Your task to perform on an android device: install app "Google Chat" Image 0: 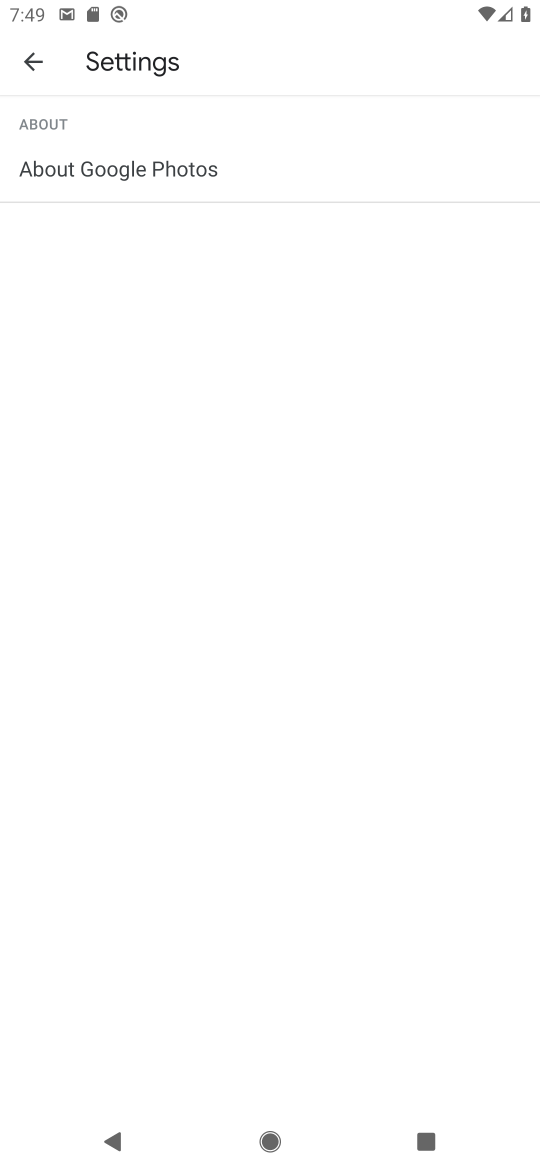
Step 0: press home button
Your task to perform on an android device: install app "Google Chat" Image 1: 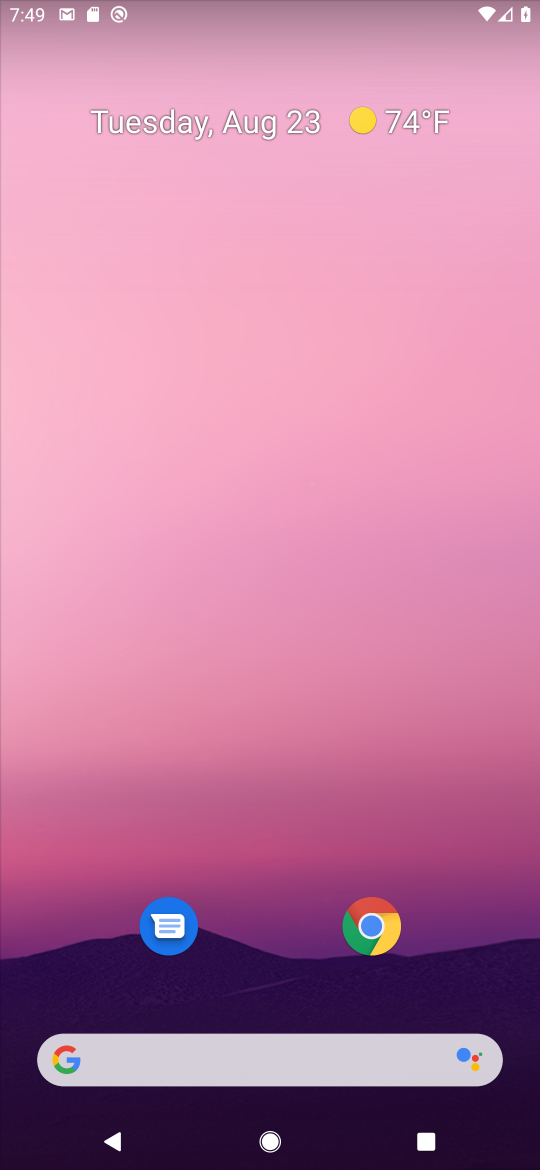
Step 1: drag from (261, 855) to (202, 36)
Your task to perform on an android device: install app "Google Chat" Image 2: 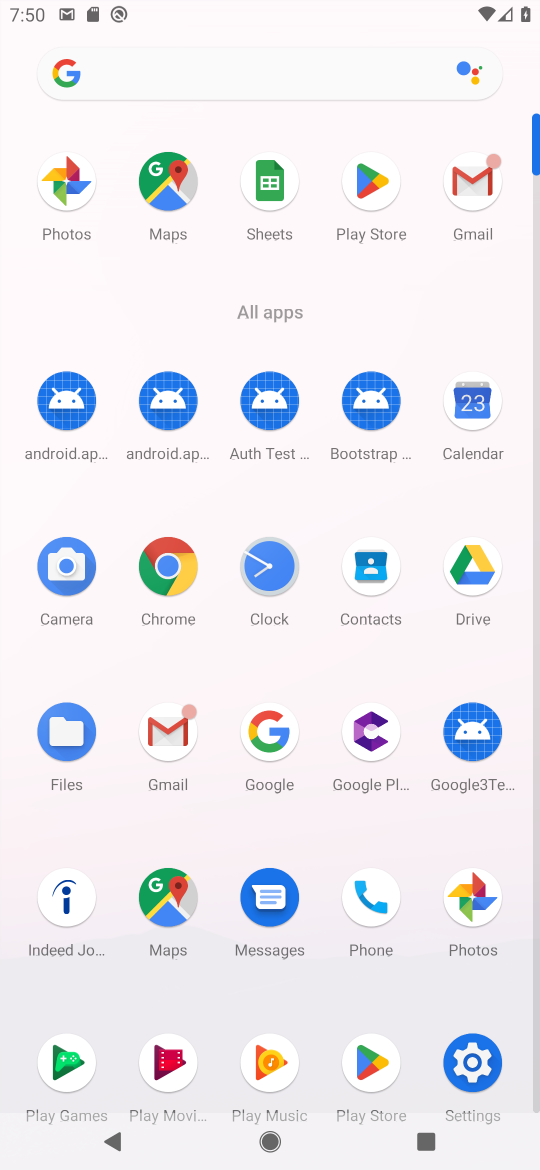
Step 2: click (366, 181)
Your task to perform on an android device: install app "Google Chat" Image 3: 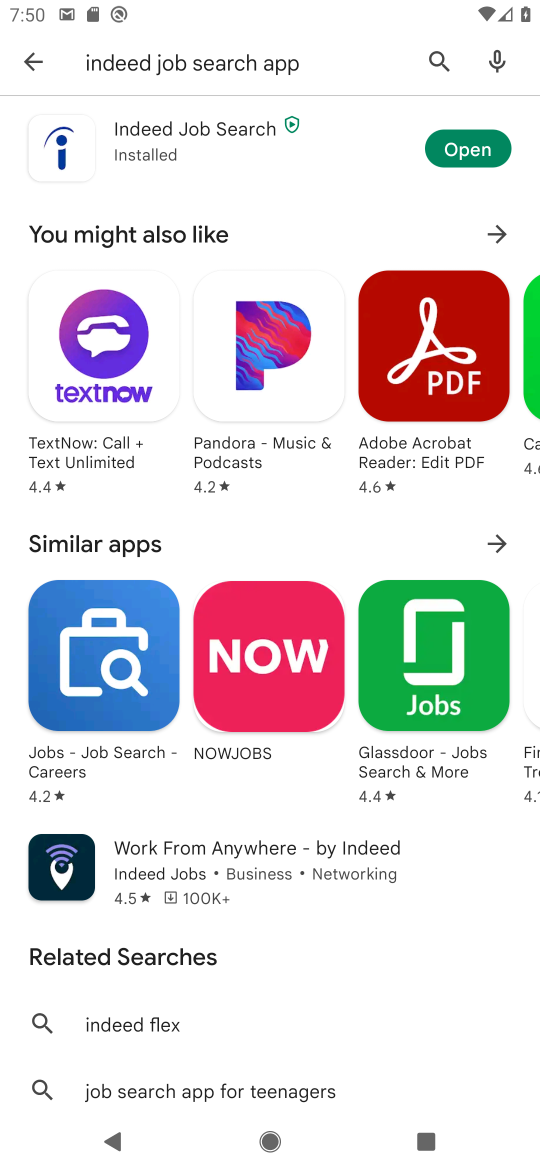
Step 3: click (178, 61)
Your task to perform on an android device: install app "Google Chat" Image 4: 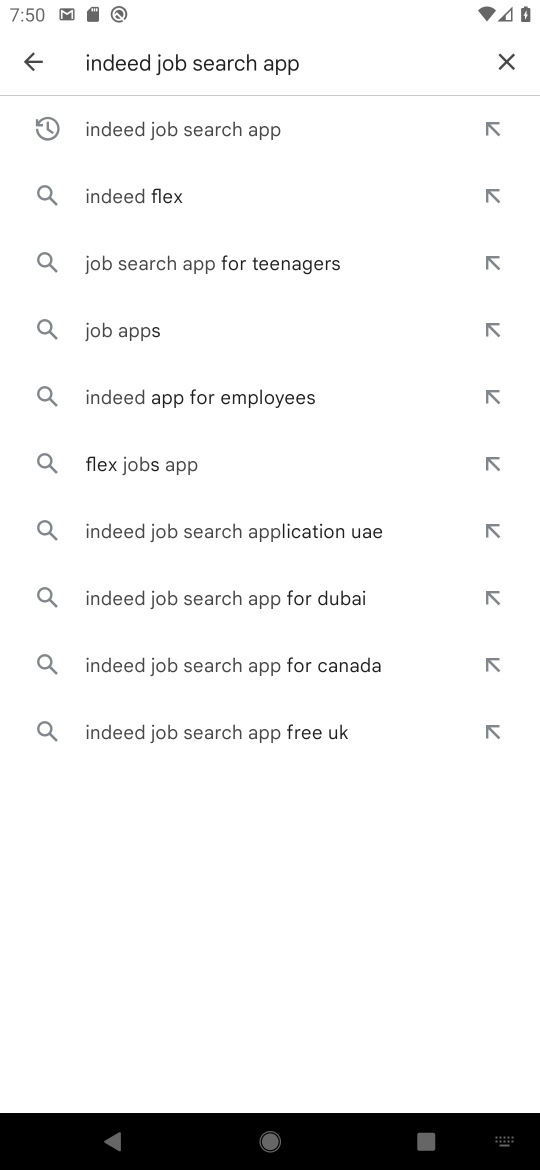
Step 4: click (503, 55)
Your task to perform on an android device: install app "Google Chat" Image 5: 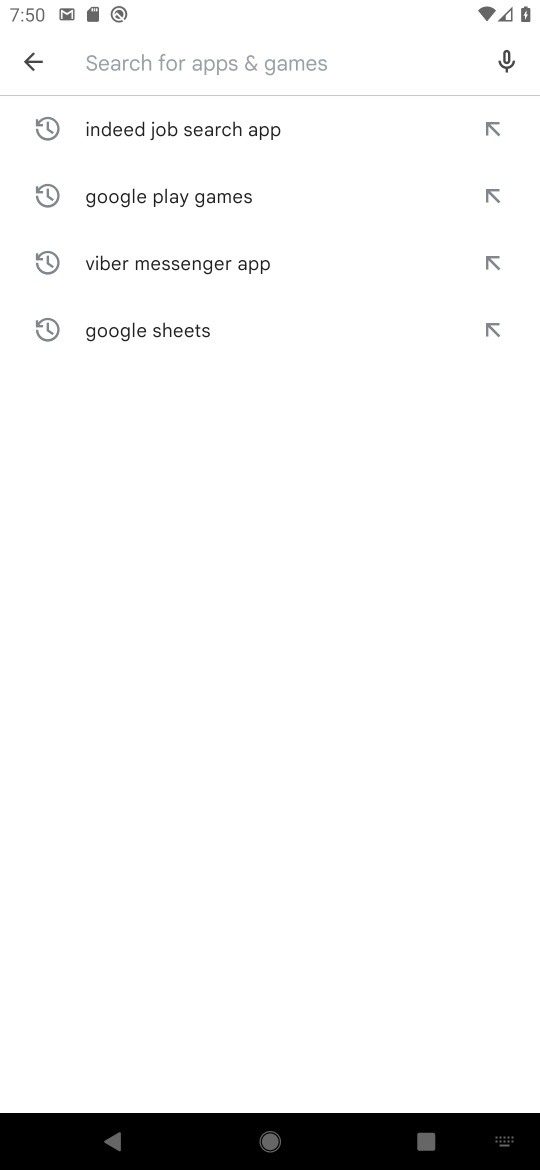
Step 5: type "google chat"
Your task to perform on an android device: install app "Google Chat" Image 6: 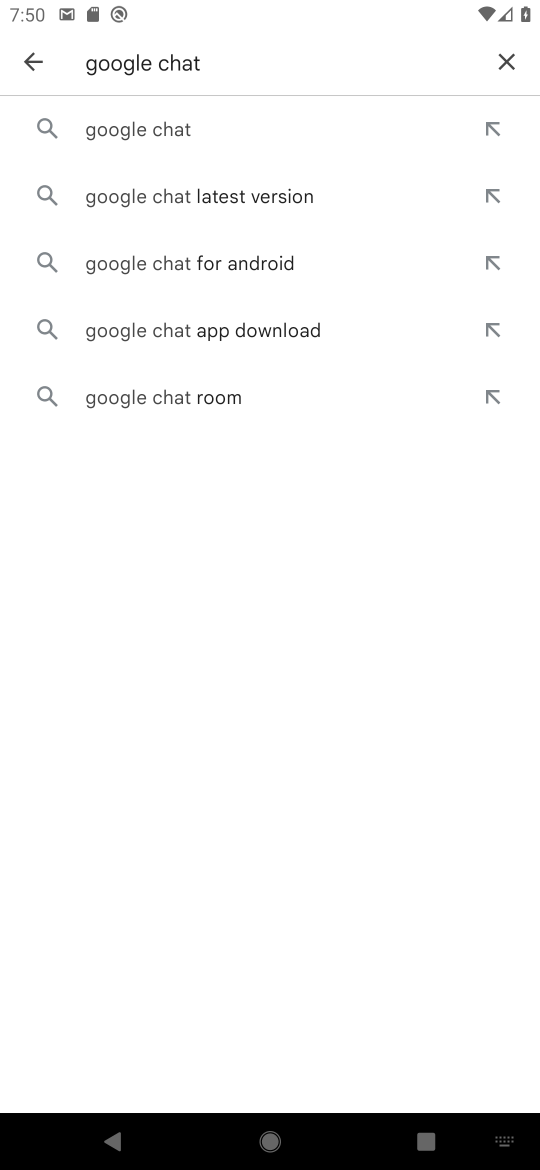
Step 6: click (153, 126)
Your task to perform on an android device: install app "Google Chat" Image 7: 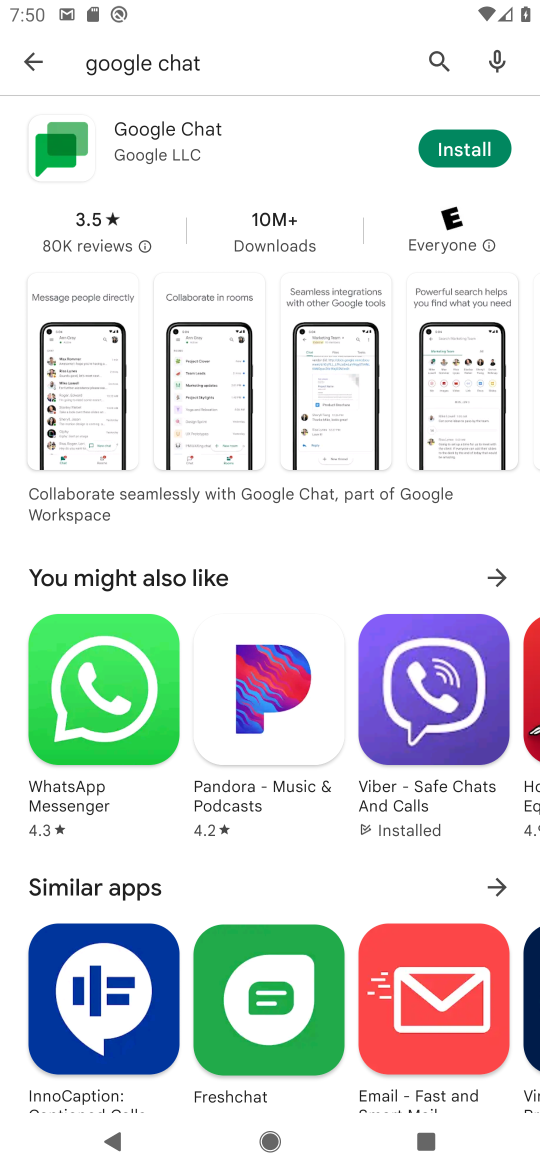
Step 7: click (459, 147)
Your task to perform on an android device: install app "Google Chat" Image 8: 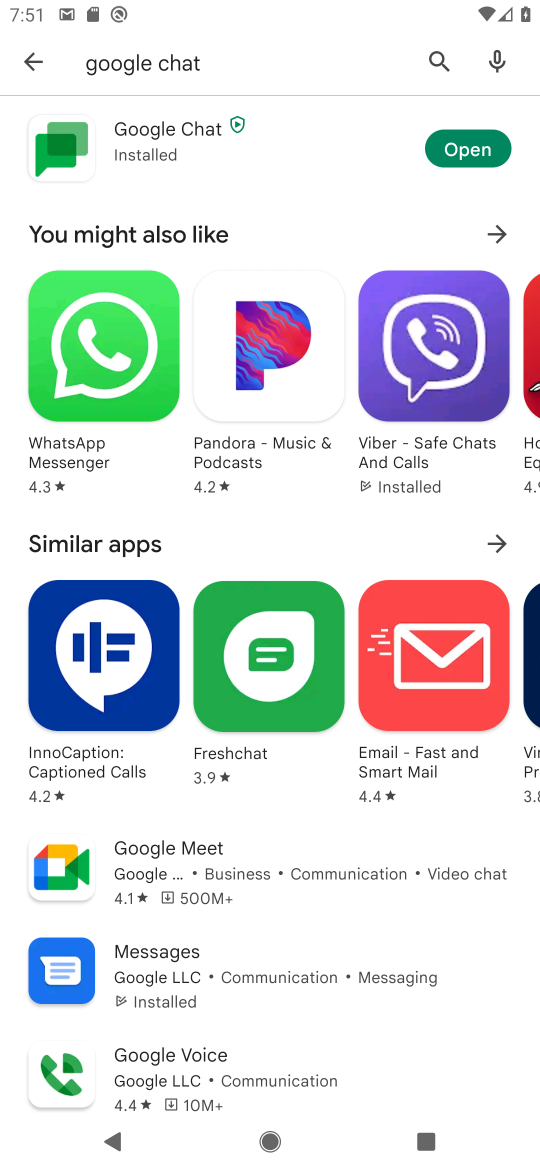
Step 8: task complete